Your task to perform on an android device: manage bookmarks in the chrome app Image 0: 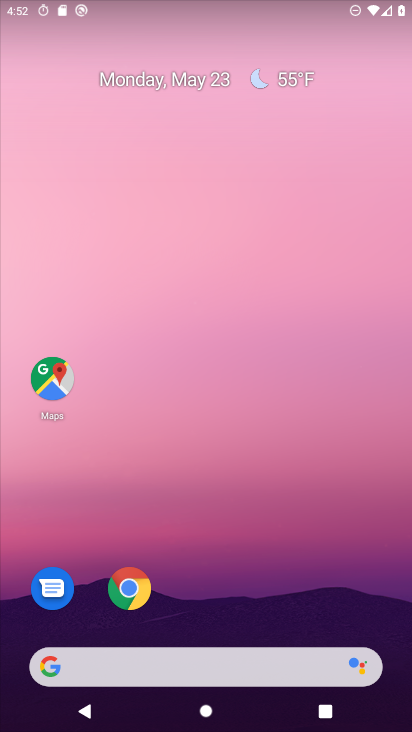
Step 0: click (132, 591)
Your task to perform on an android device: manage bookmarks in the chrome app Image 1: 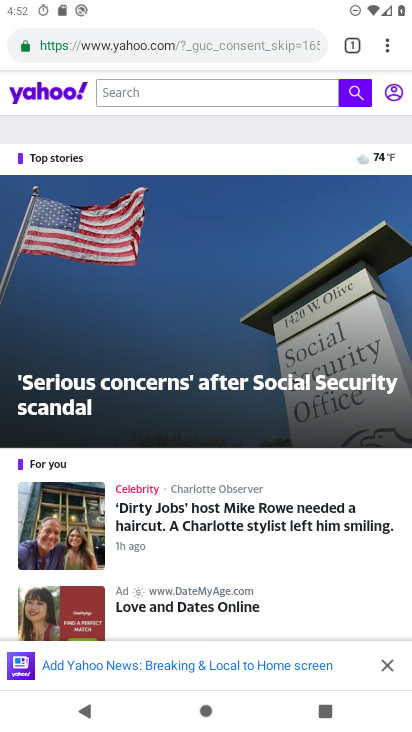
Step 1: click (383, 50)
Your task to perform on an android device: manage bookmarks in the chrome app Image 2: 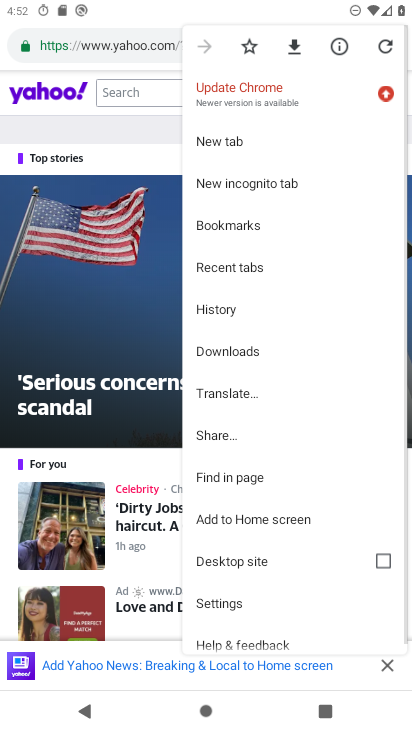
Step 2: click (249, 228)
Your task to perform on an android device: manage bookmarks in the chrome app Image 3: 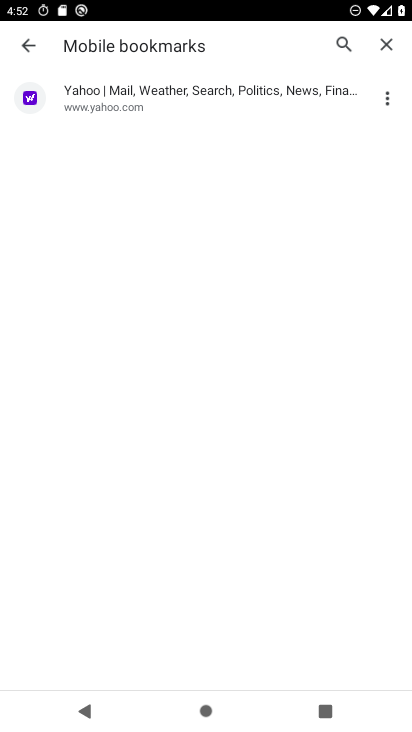
Step 3: click (384, 98)
Your task to perform on an android device: manage bookmarks in the chrome app Image 4: 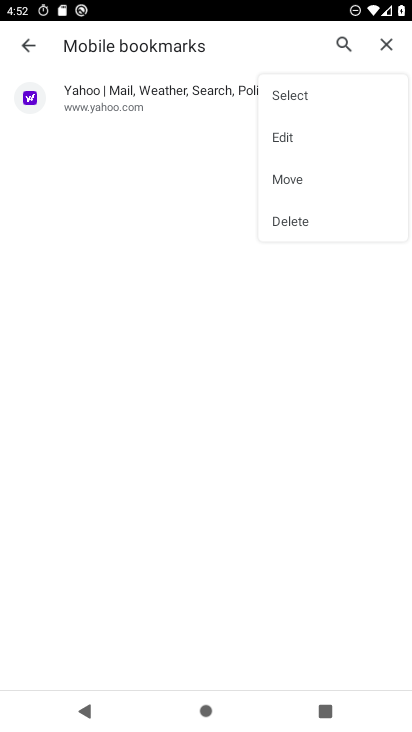
Step 4: click (301, 222)
Your task to perform on an android device: manage bookmarks in the chrome app Image 5: 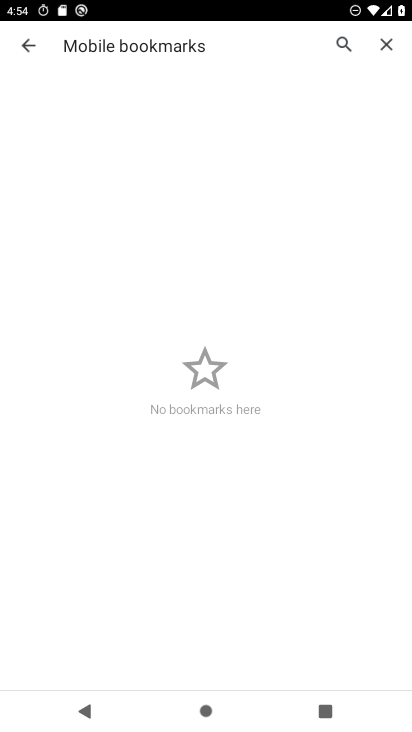
Step 5: task complete